Your task to perform on an android device: open chrome and create a bookmark for the current page Image 0: 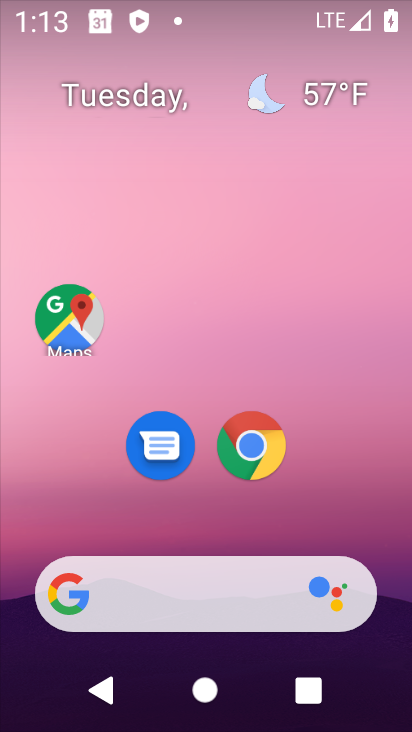
Step 0: drag from (375, 520) to (378, 135)
Your task to perform on an android device: open chrome and create a bookmark for the current page Image 1: 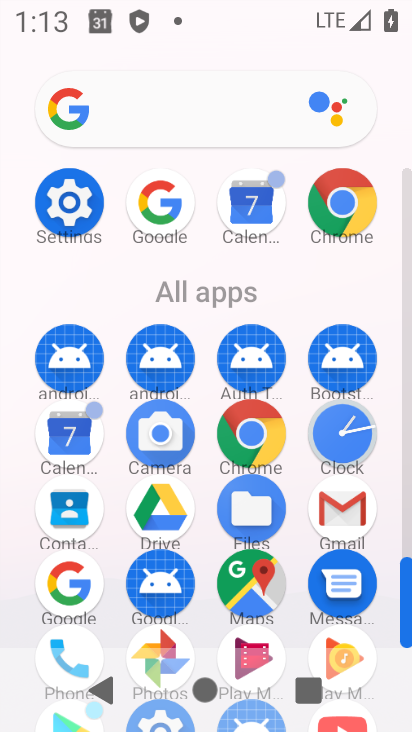
Step 1: click (259, 431)
Your task to perform on an android device: open chrome and create a bookmark for the current page Image 2: 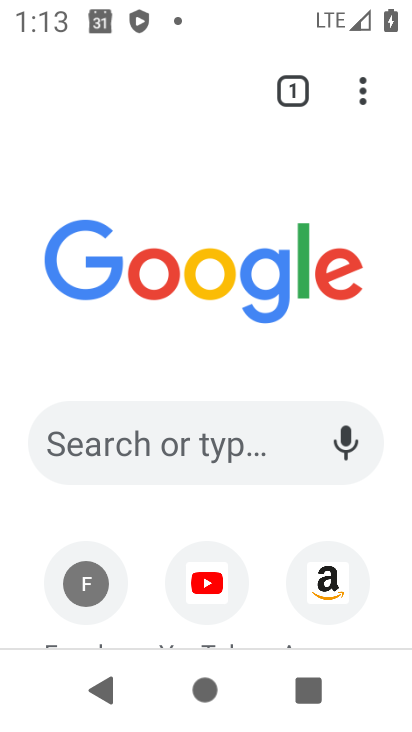
Step 2: click (363, 99)
Your task to perform on an android device: open chrome and create a bookmark for the current page Image 3: 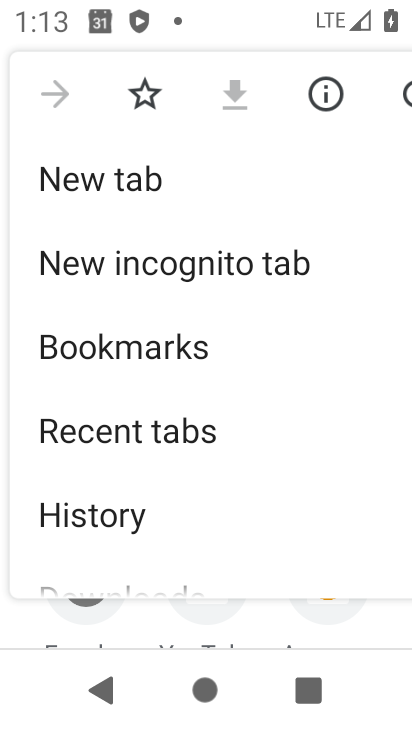
Step 3: drag from (305, 402) to (305, 291)
Your task to perform on an android device: open chrome and create a bookmark for the current page Image 4: 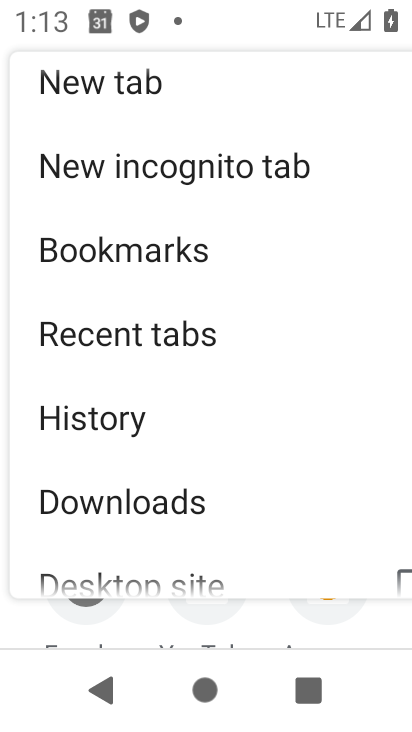
Step 4: drag from (284, 161) to (285, 343)
Your task to perform on an android device: open chrome and create a bookmark for the current page Image 5: 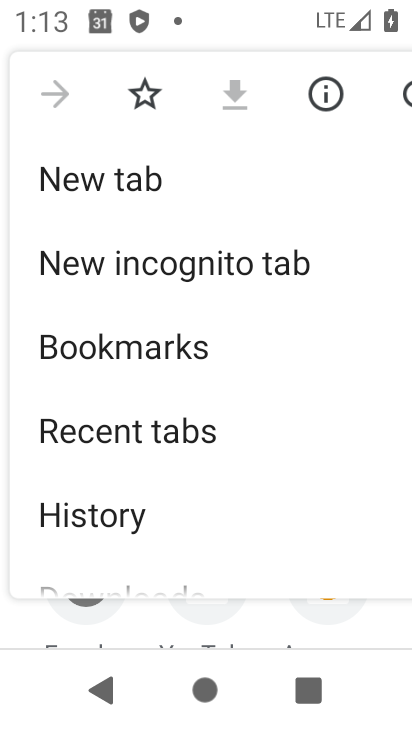
Step 5: click (151, 96)
Your task to perform on an android device: open chrome and create a bookmark for the current page Image 6: 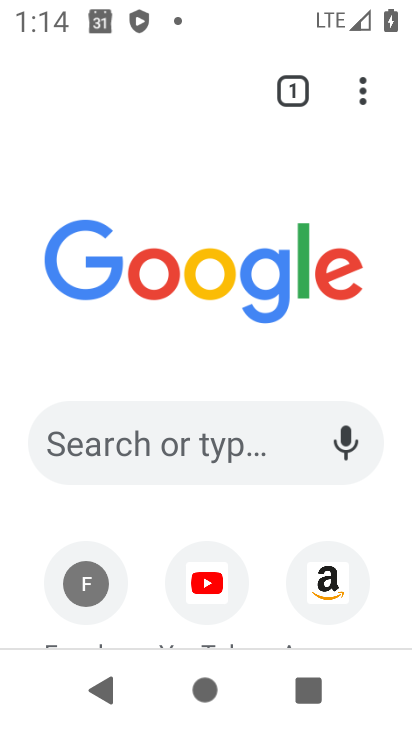
Step 6: task complete